Your task to perform on an android device: turn on the 12-hour format for clock Image 0: 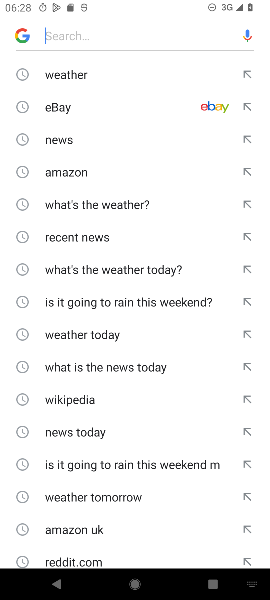
Step 0: press home button
Your task to perform on an android device: turn on the 12-hour format for clock Image 1: 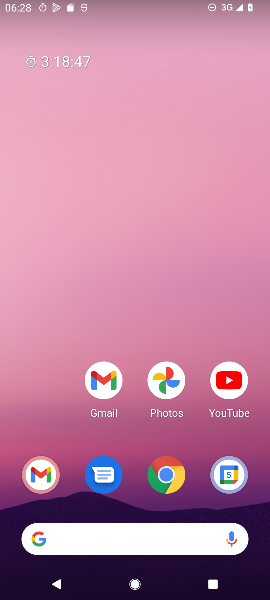
Step 1: drag from (64, 422) to (65, 167)
Your task to perform on an android device: turn on the 12-hour format for clock Image 2: 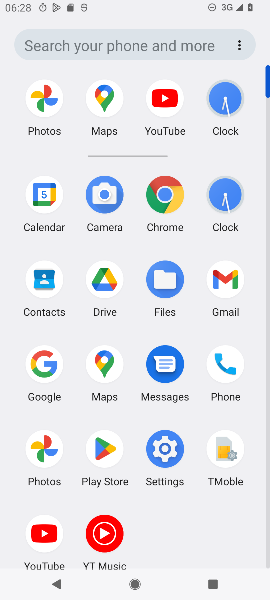
Step 2: click (229, 194)
Your task to perform on an android device: turn on the 12-hour format for clock Image 3: 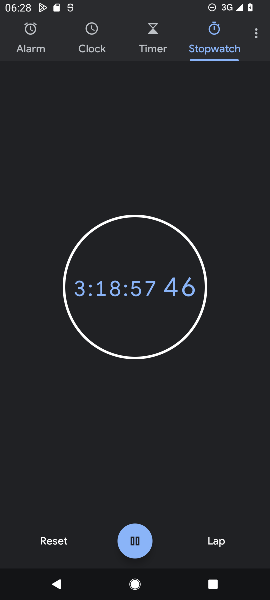
Step 3: click (256, 35)
Your task to perform on an android device: turn on the 12-hour format for clock Image 4: 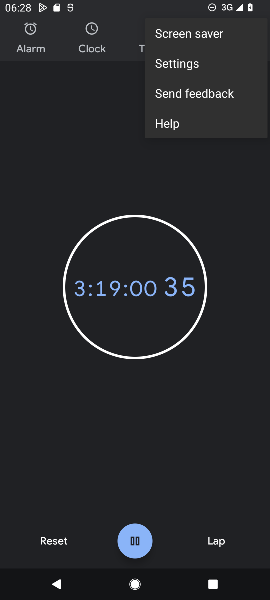
Step 4: click (209, 68)
Your task to perform on an android device: turn on the 12-hour format for clock Image 5: 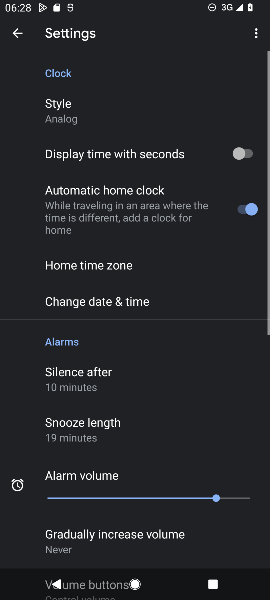
Step 5: drag from (209, 290) to (215, 209)
Your task to perform on an android device: turn on the 12-hour format for clock Image 6: 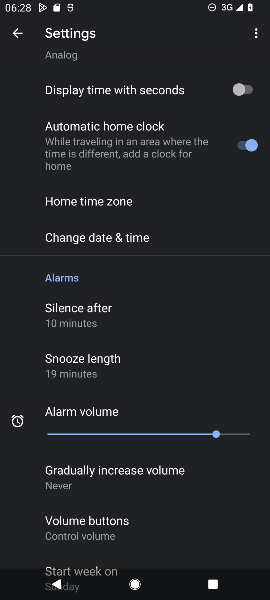
Step 6: drag from (205, 285) to (225, 208)
Your task to perform on an android device: turn on the 12-hour format for clock Image 7: 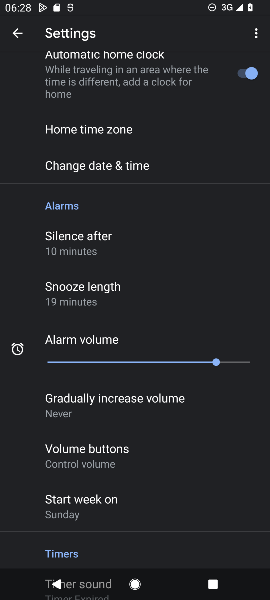
Step 7: drag from (224, 451) to (226, 305)
Your task to perform on an android device: turn on the 12-hour format for clock Image 8: 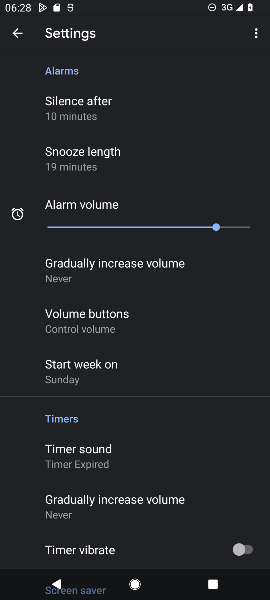
Step 8: drag from (187, 414) to (202, 349)
Your task to perform on an android device: turn on the 12-hour format for clock Image 9: 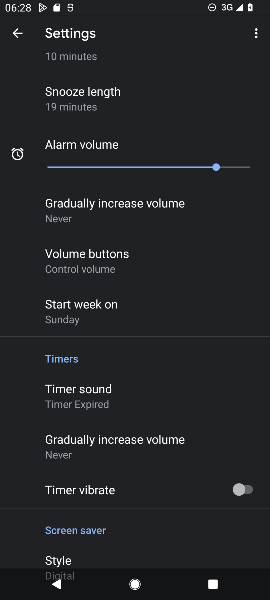
Step 9: drag from (184, 493) to (189, 365)
Your task to perform on an android device: turn on the 12-hour format for clock Image 10: 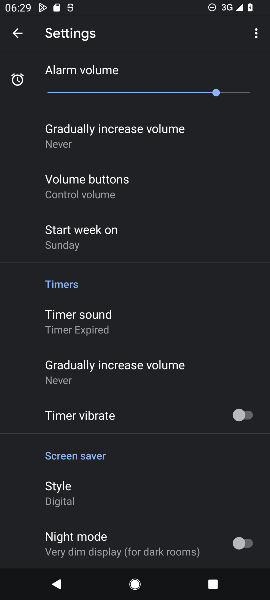
Step 10: drag from (161, 214) to (166, 280)
Your task to perform on an android device: turn on the 12-hour format for clock Image 11: 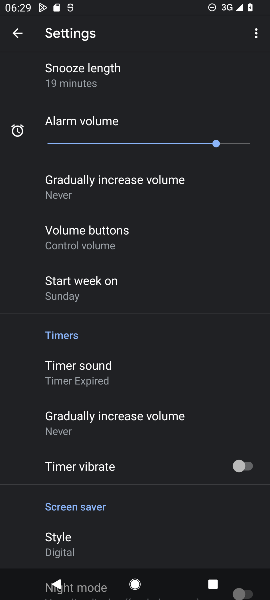
Step 11: drag from (199, 191) to (200, 292)
Your task to perform on an android device: turn on the 12-hour format for clock Image 12: 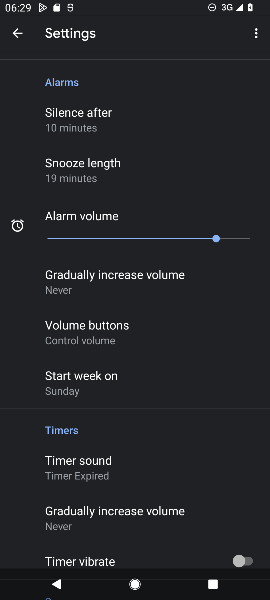
Step 12: drag from (194, 172) to (188, 301)
Your task to perform on an android device: turn on the 12-hour format for clock Image 13: 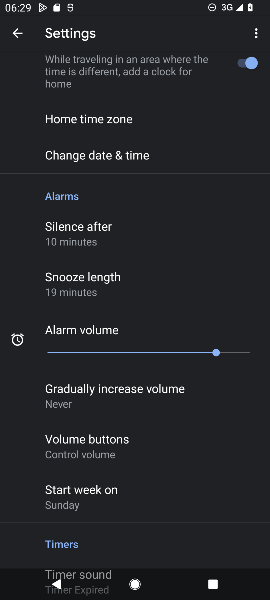
Step 13: drag from (198, 171) to (196, 300)
Your task to perform on an android device: turn on the 12-hour format for clock Image 14: 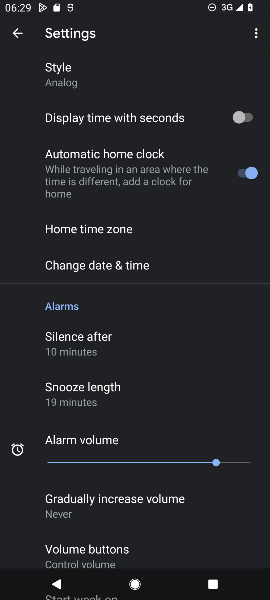
Step 14: drag from (176, 239) to (184, 374)
Your task to perform on an android device: turn on the 12-hour format for clock Image 15: 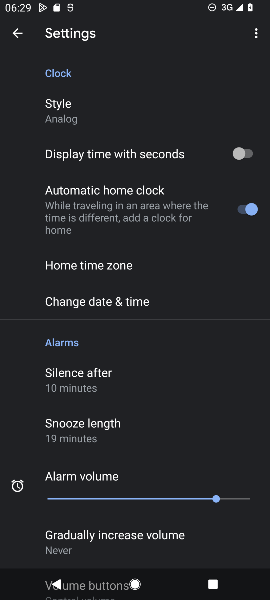
Step 15: click (123, 307)
Your task to perform on an android device: turn on the 12-hour format for clock Image 16: 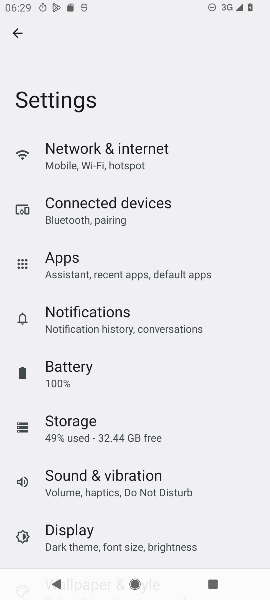
Step 16: task complete